Your task to perform on an android device: find photos in the google photos app Image 0: 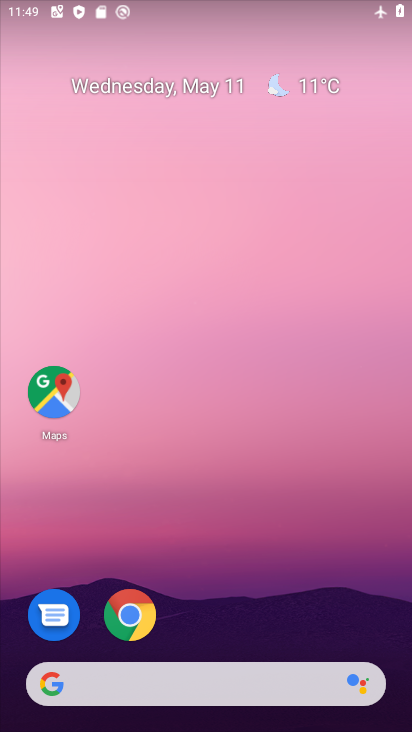
Step 0: drag from (270, 583) to (352, 76)
Your task to perform on an android device: find photos in the google photos app Image 1: 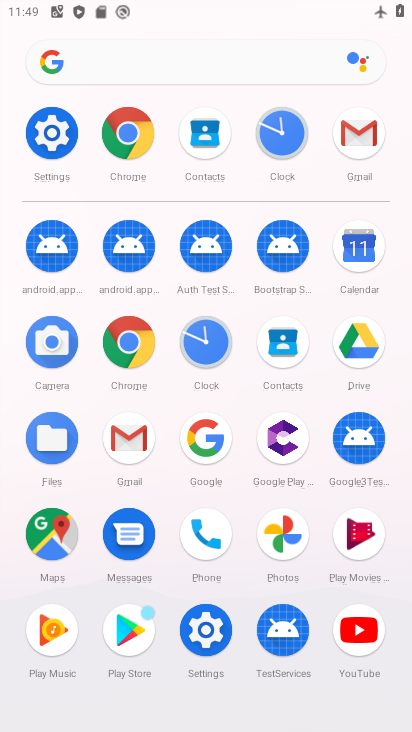
Step 1: click (288, 541)
Your task to perform on an android device: find photos in the google photos app Image 2: 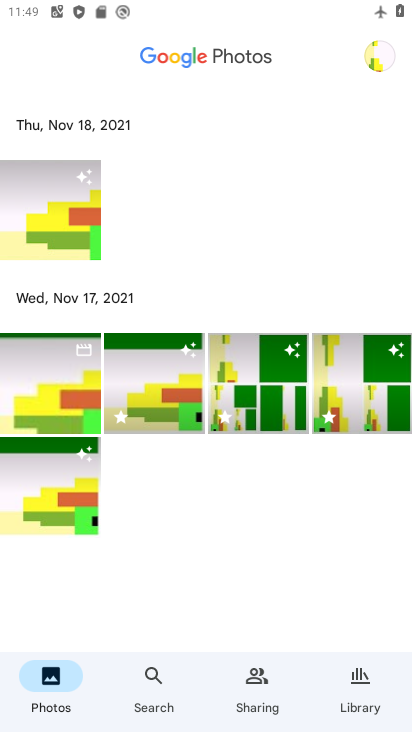
Step 2: task complete